Your task to perform on an android device: turn on notifications settings in the gmail app Image 0: 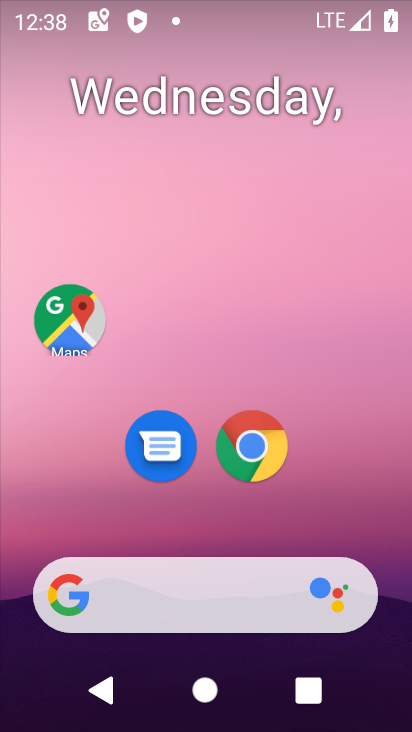
Step 0: click (191, 80)
Your task to perform on an android device: turn on notifications settings in the gmail app Image 1: 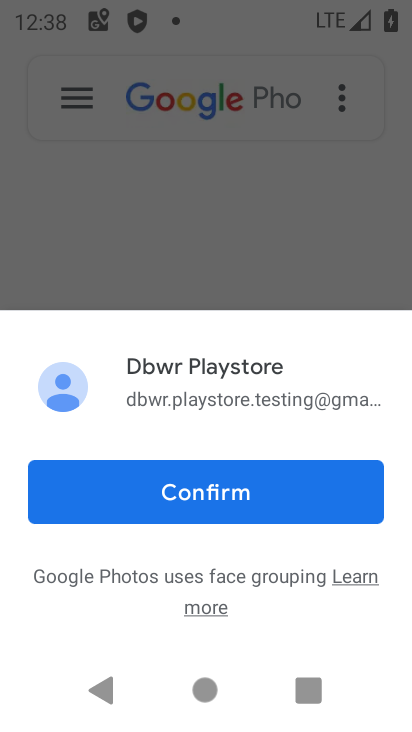
Step 1: press back button
Your task to perform on an android device: turn on notifications settings in the gmail app Image 2: 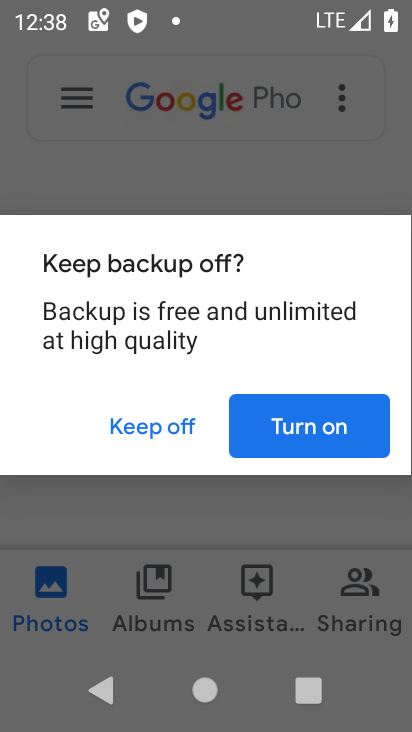
Step 2: click (154, 427)
Your task to perform on an android device: turn on notifications settings in the gmail app Image 3: 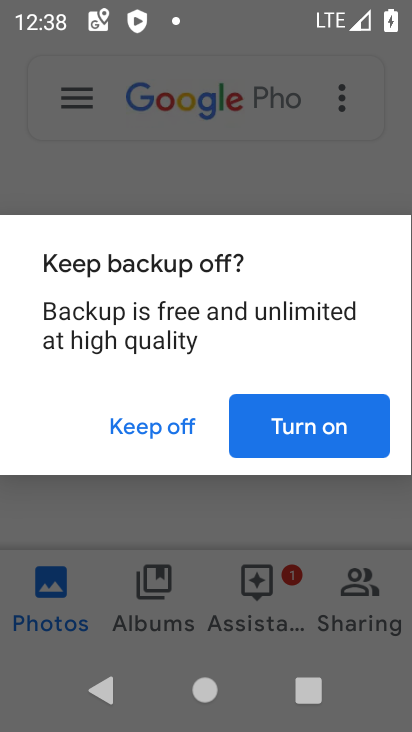
Step 3: click (154, 427)
Your task to perform on an android device: turn on notifications settings in the gmail app Image 4: 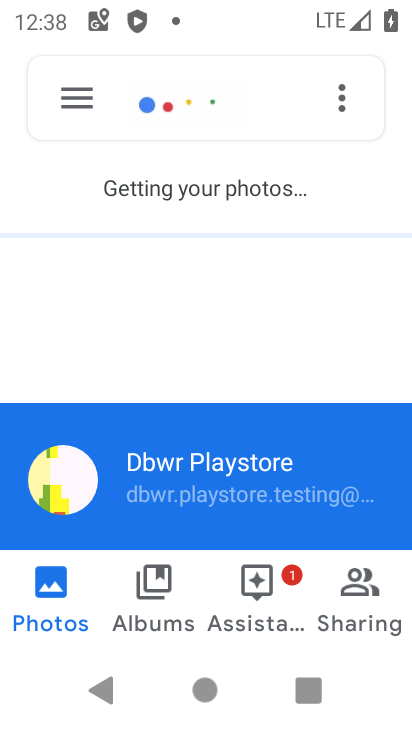
Step 4: press home button
Your task to perform on an android device: turn on notifications settings in the gmail app Image 5: 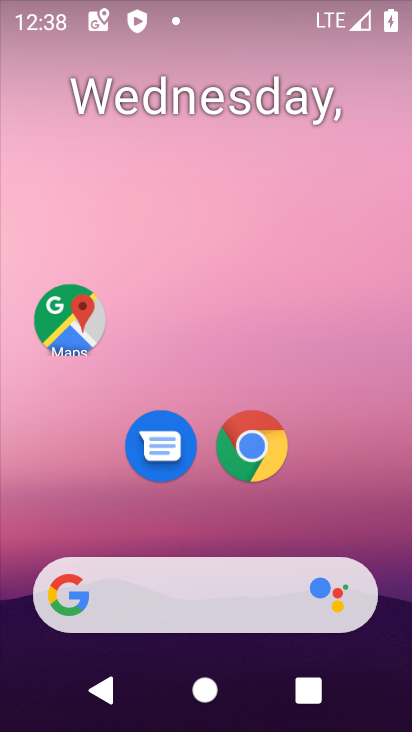
Step 5: drag from (379, 624) to (230, 25)
Your task to perform on an android device: turn on notifications settings in the gmail app Image 6: 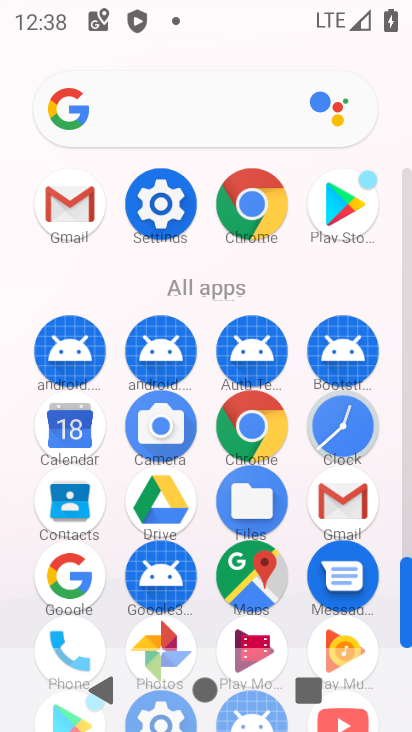
Step 6: click (336, 505)
Your task to perform on an android device: turn on notifications settings in the gmail app Image 7: 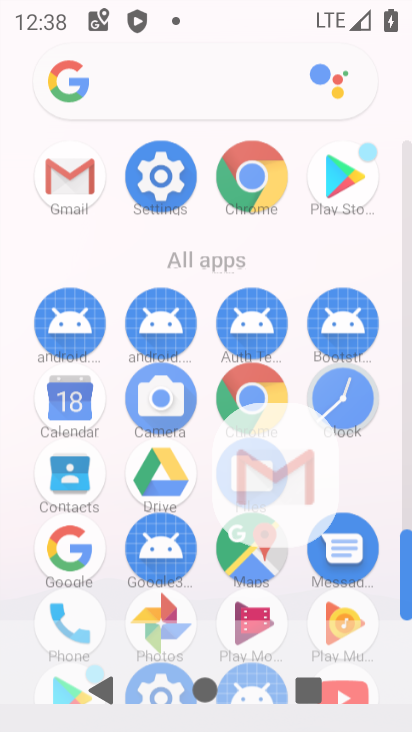
Step 7: click (333, 503)
Your task to perform on an android device: turn on notifications settings in the gmail app Image 8: 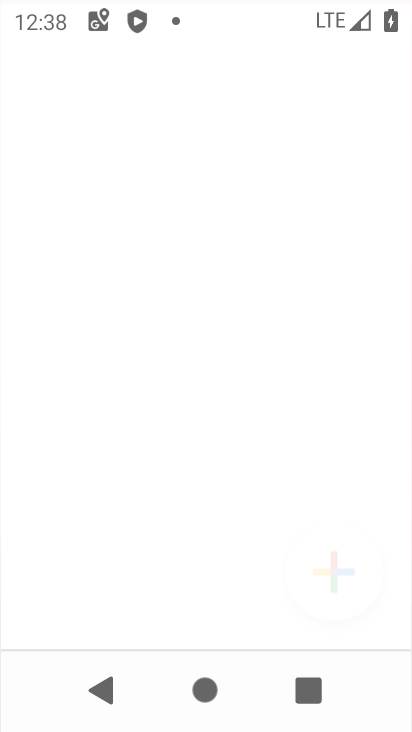
Step 8: click (333, 503)
Your task to perform on an android device: turn on notifications settings in the gmail app Image 9: 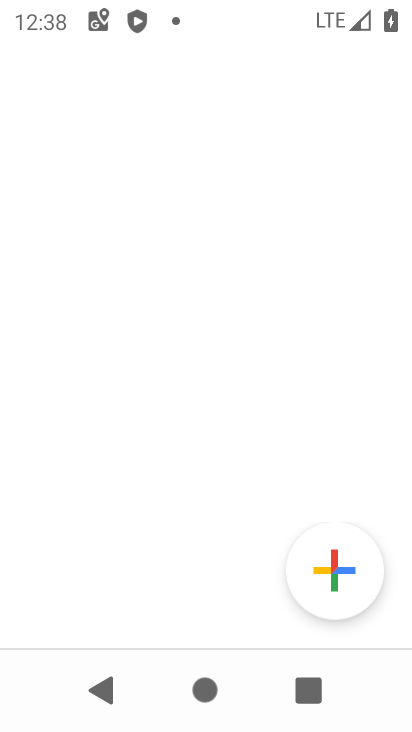
Step 9: click (334, 502)
Your task to perform on an android device: turn on notifications settings in the gmail app Image 10: 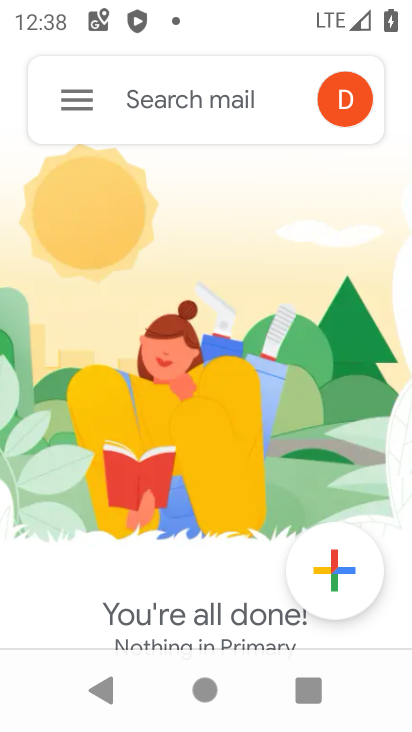
Step 10: click (79, 106)
Your task to perform on an android device: turn on notifications settings in the gmail app Image 11: 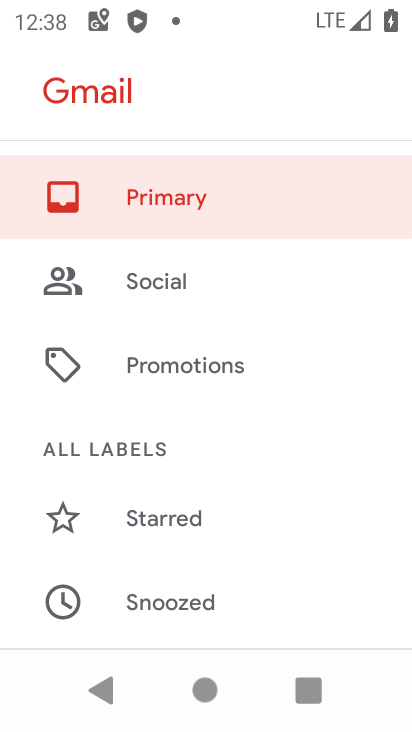
Step 11: drag from (230, 527) to (190, 104)
Your task to perform on an android device: turn on notifications settings in the gmail app Image 12: 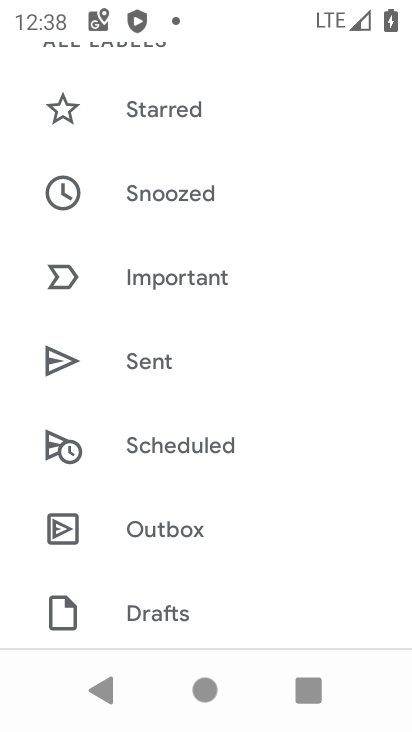
Step 12: drag from (237, 439) to (193, 153)
Your task to perform on an android device: turn on notifications settings in the gmail app Image 13: 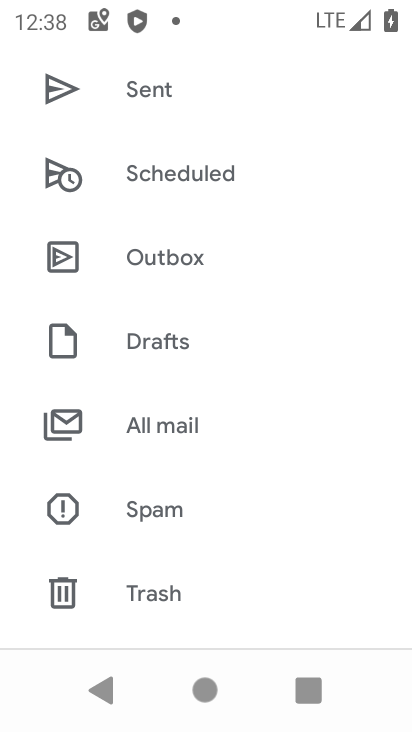
Step 13: press home button
Your task to perform on an android device: turn on notifications settings in the gmail app Image 14: 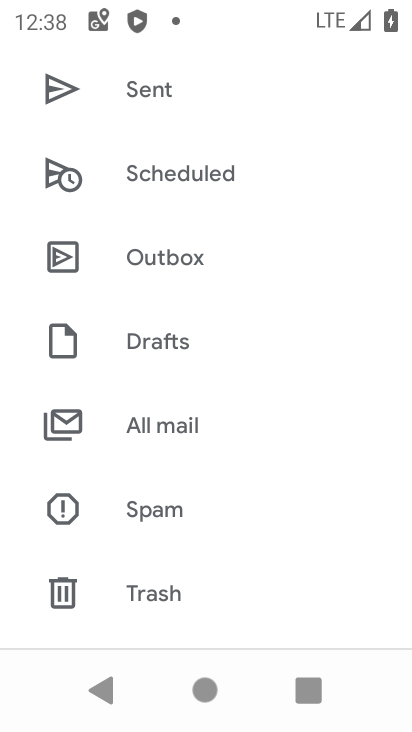
Step 14: press home button
Your task to perform on an android device: turn on notifications settings in the gmail app Image 15: 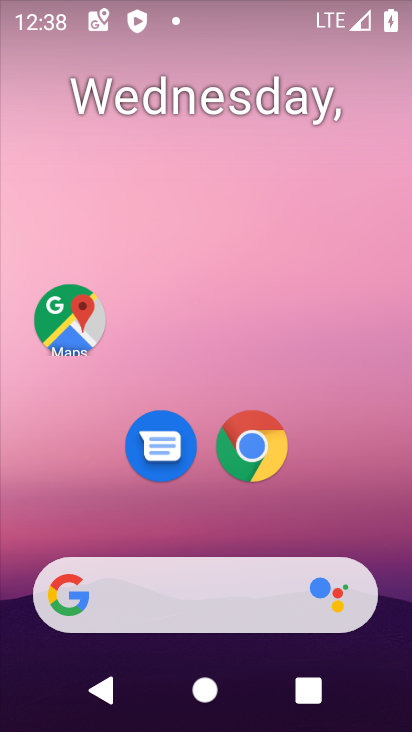
Step 15: drag from (355, 566) to (170, 106)
Your task to perform on an android device: turn on notifications settings in the gmail app Image 16: 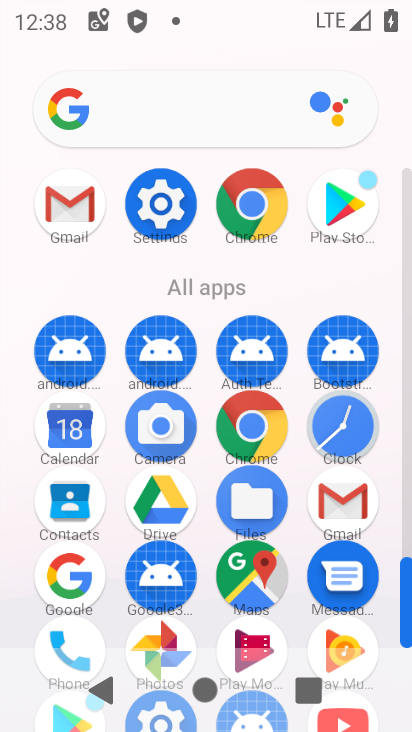
Step 16: click (344, 507)
Your task to perform on an android device: turn on notifications settings in the gmail app Image 17: 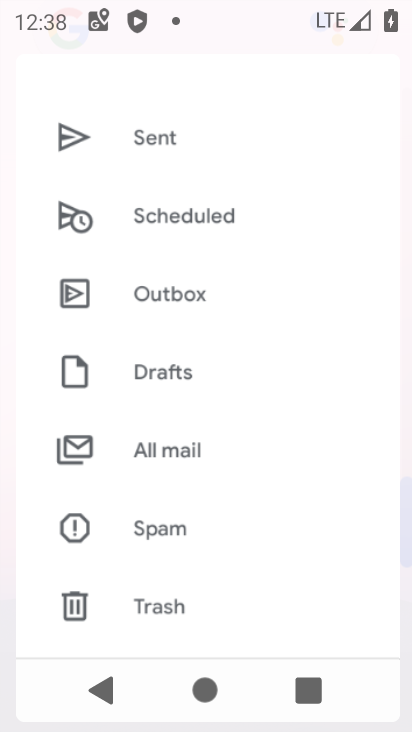
Step 17: click (346, 506)
Your task to perform on an android device: turn on notifications settings in the gmail app Image 18: 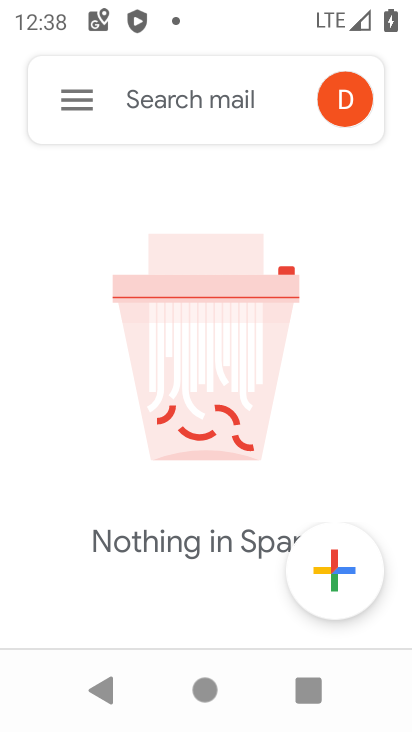
Step 18: click (65, 97)
Your task to perform on an android device: turn on notifications settings in the gmail app Image 19: 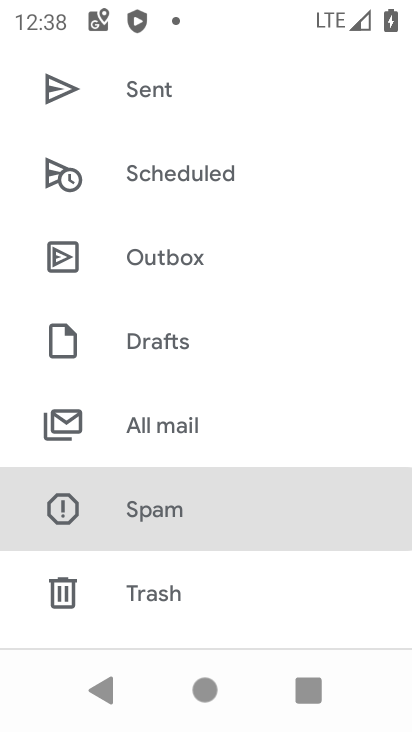
Step 19: drag from (218, 518) to (181, 219)
Your task to perform on an android device: turn on notifications settings in the gmail app Image 20: 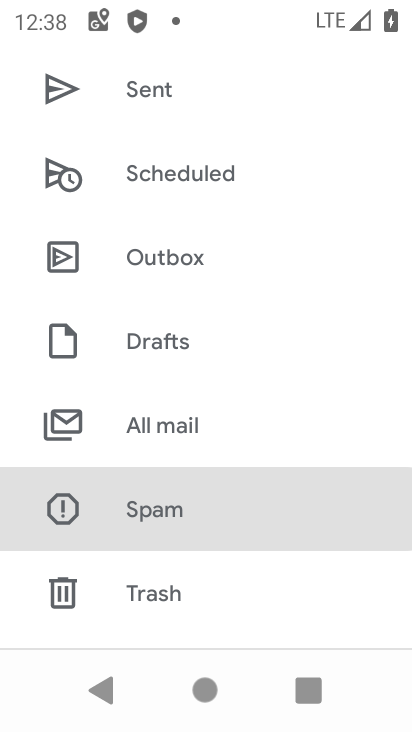
Step 20: drag from (208, 593) to (181, 154)
Your task to perform on an android device: turn on notifications settings in the gmail app Image 21: 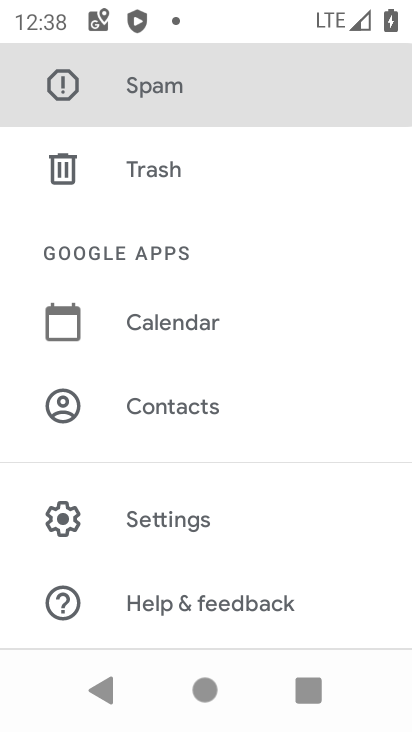
Step 21: drag from (215, 355) to (208, 142)
Your task to perform on an android device: turn on notifications settings in the gmail app Image 22: 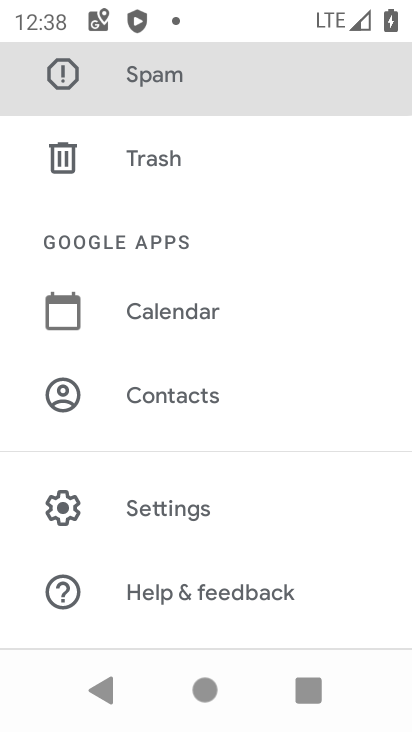
Step 22: click (144, 521)
Your task to perform on an android device: turn on notifications settings in the gmail app Image 23: 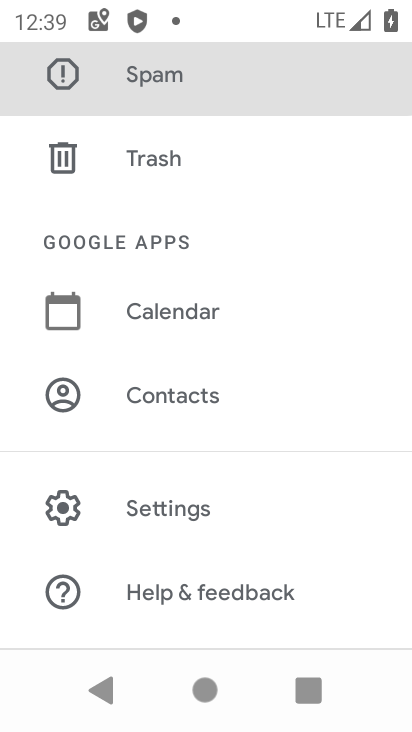
Step 23: click (157, 491)
Your task to perform on an android device: turn on notifications settings in the gmail app Image 24: 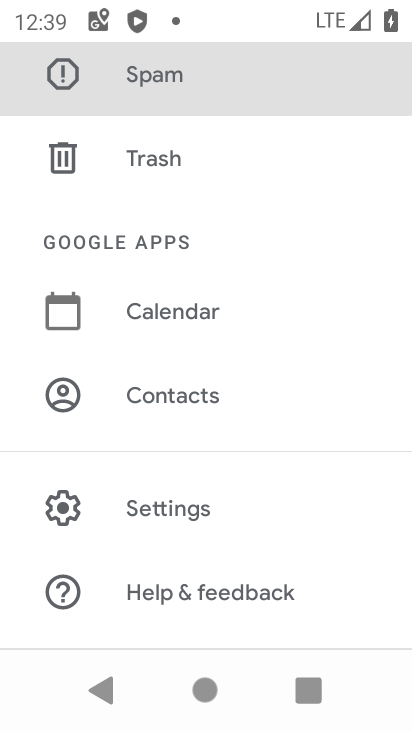
Step 24: click (157, 494)
Your task to perform on an android device: turn on notifications settings in the gmail app Image 25: 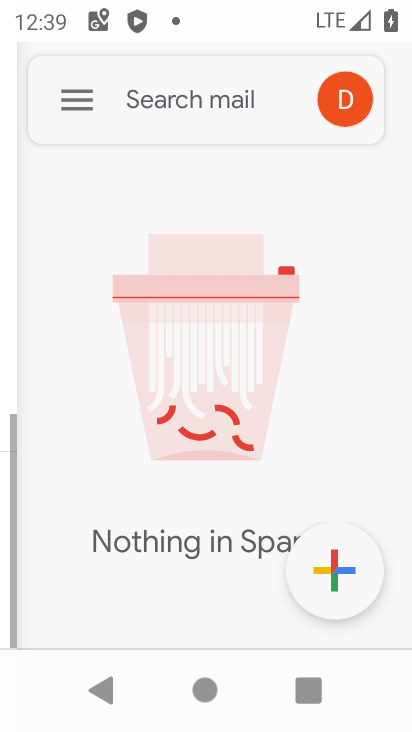
Step 25: click (155, 498)
Your task to perform on an android device: turn on notifications settings in the gmail app Image 26: 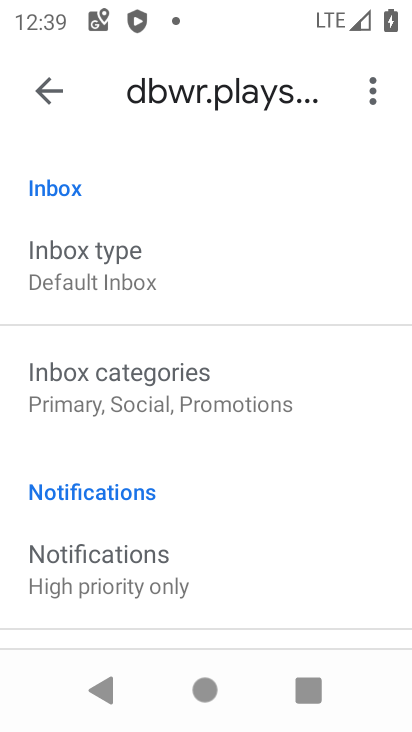
Step 26: click (137, 576)
Your task to perform on an android device: turn on notifications settings in the gmail app Image 27: 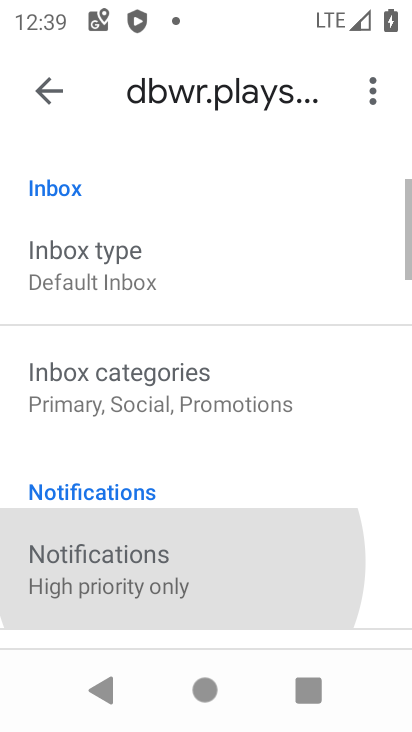
Step 27: click (137, 576)
Your task to perform on an android device: turn on notifications settings in the gmail app Image 28: 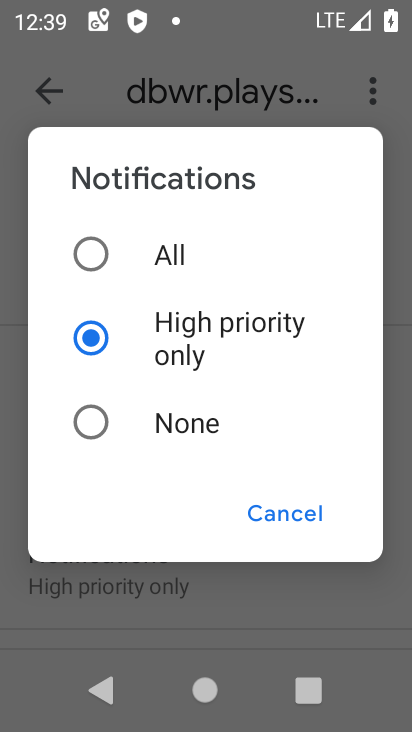
Step 28: click (89, 248)
Your task to perform on an android device: turn on notifications settings in the gmail app Image 29: 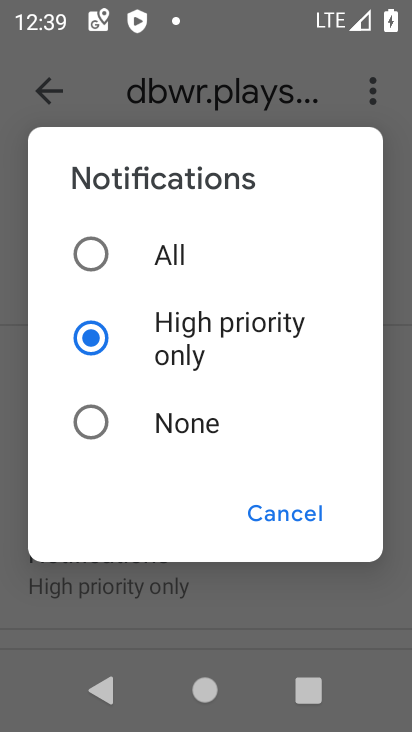
Step 29: click (89, 248)
Your task to perform on an android device: turn on notifications settings in the gmail app Image 30: 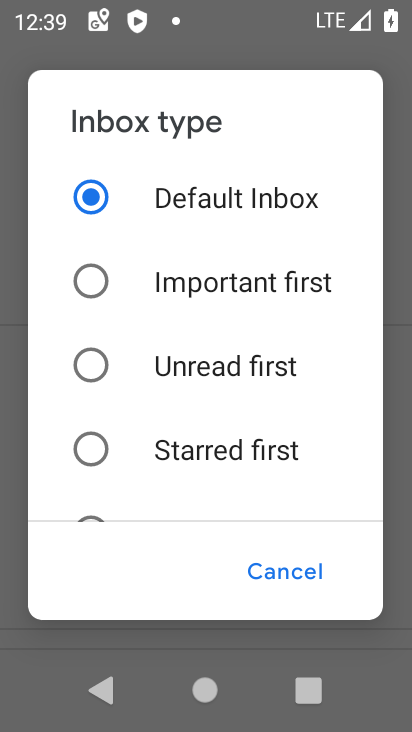
Step 30: click (283, 568)
Your task to perform on an android device: turn on notifications settings in the gmail app Image 31: 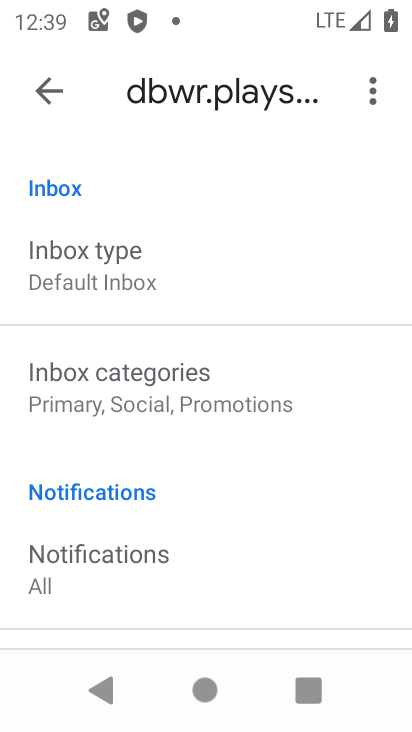
Step 31: click (84, 547)
Your task to perform on an android device: turn on notifications settings in the gmail app Image 32: 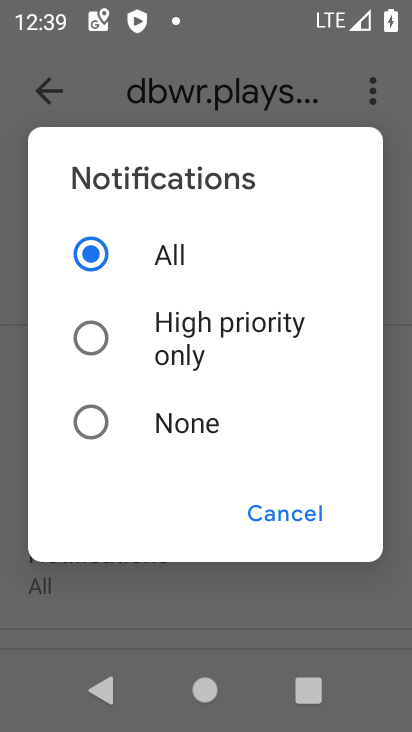
Step 32: click (273, 509)
Your task to perform on an android device: turn on notifications settings in the gmail app Image 33: 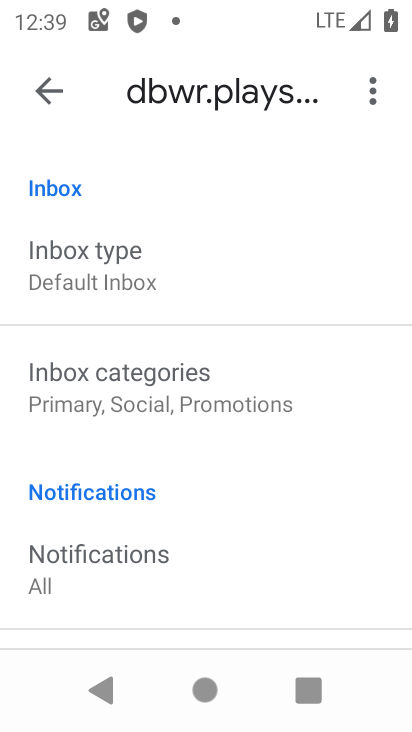
Step 33: task complete